Your task to perform on an android device: Open Yahoo.com Image 0: 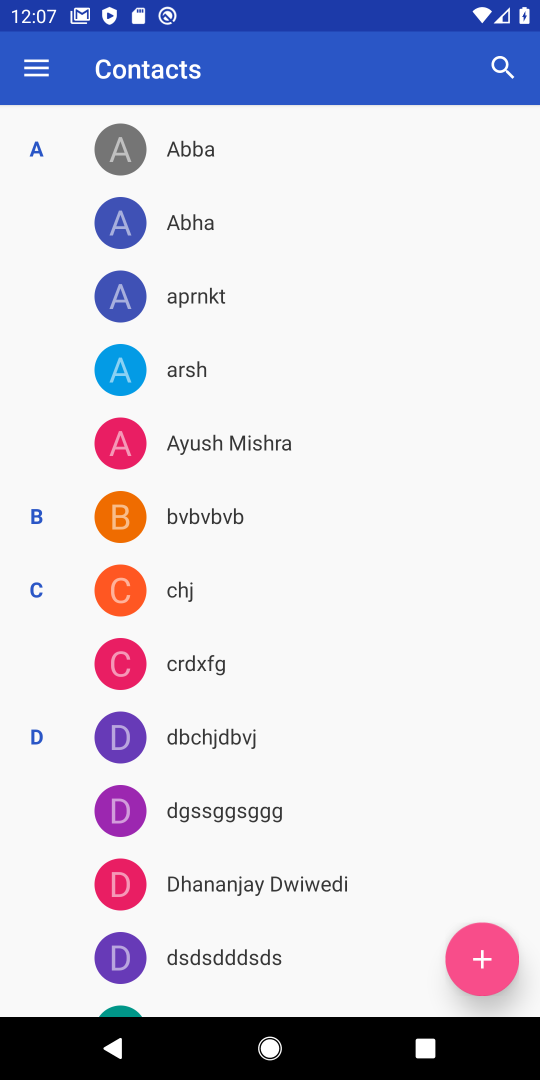
Step 0: task complete